Your task to perform on an android device: Open Maps and search for coffee Image 0: 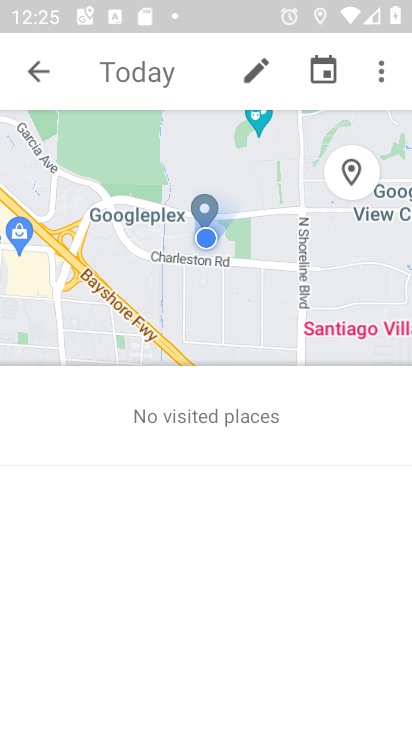
Step 0: press home button
Your task to perform on an android device: Open Maps and search for coffee Image 1: 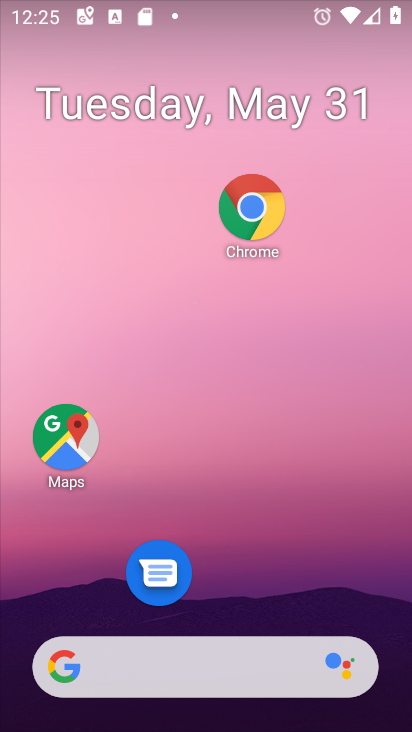
Step 1: click (57, 446)
Your task to perform on an android device: Open Maps and search for coffee Image 2: 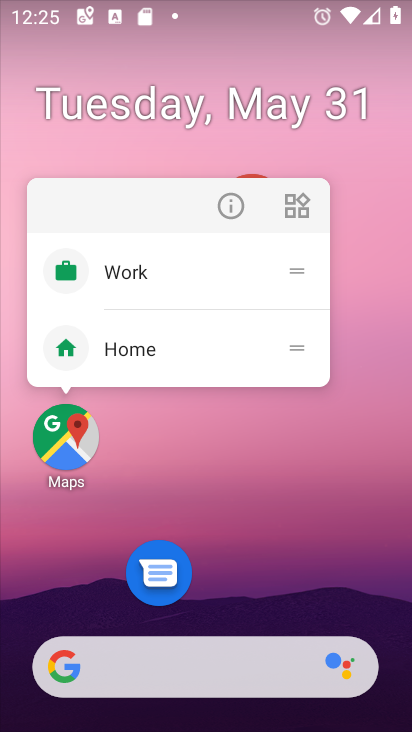
Step 2: click (75, 454)
Your task to perform on an android device: Open Maps and search for coffee Image 3: 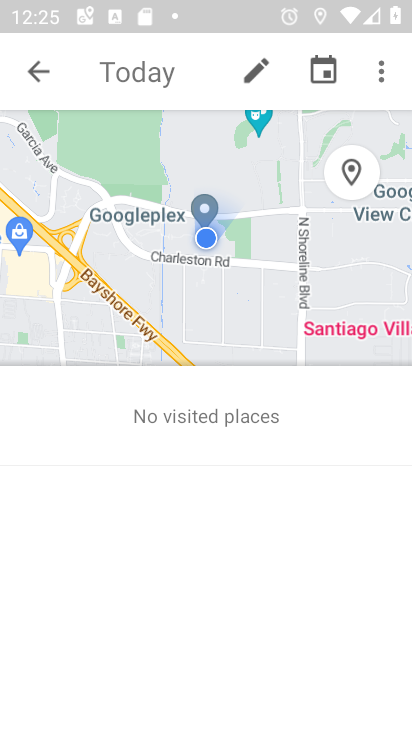
Step 3: click (38, 75)
Your task to perform on an android device: Open Maps and search for coffee Image 4: 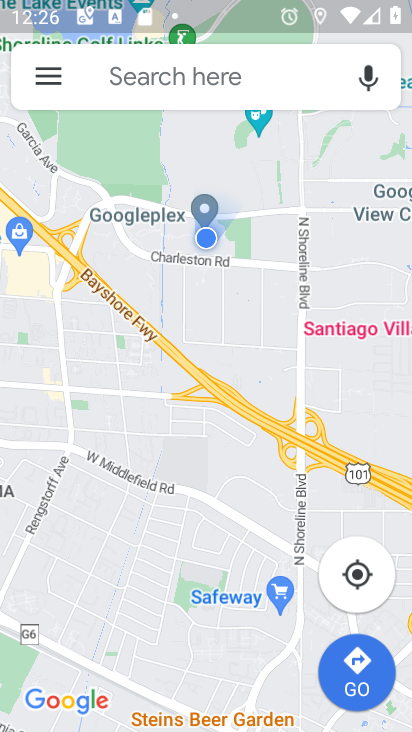
Step 4: click (126, 79)
Your task to perform on an android device: Open Maps and search for coffee Image 5: 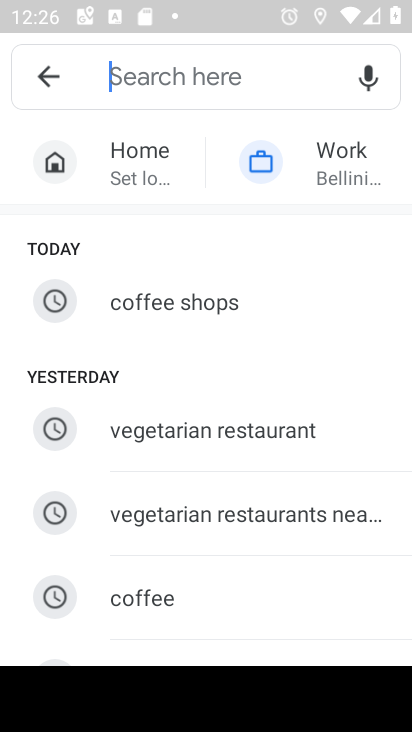
Step 5: click (275, 586)
Your task to perform on an android device: Open Maps and search for coffee Image 6: 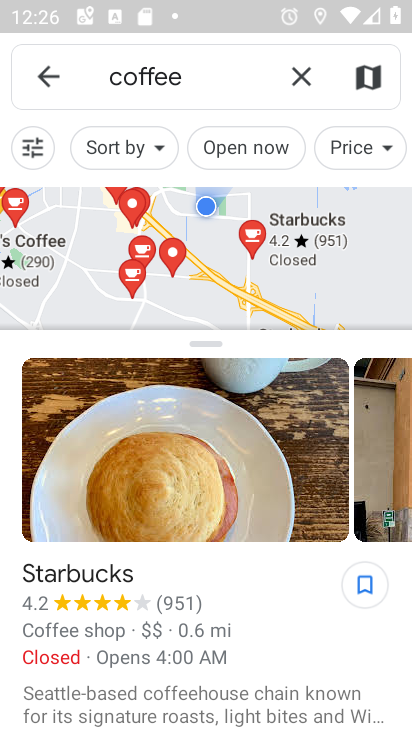
Step 6: task complete